Your task to perform on an android device: What is the recent news? Image 0: 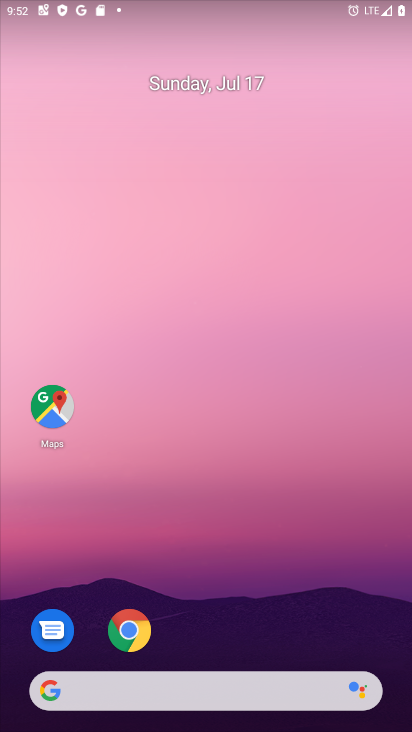
Step 0: press home button
Your task to perform on an android device: What is the recent news? Image 1: 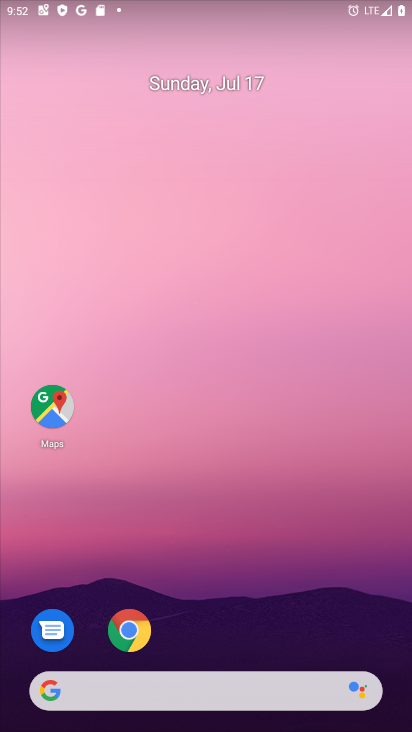
Step 1: task complete